Your task to perform on an android device: Search for the new Jordans on Nike.com Image 0: 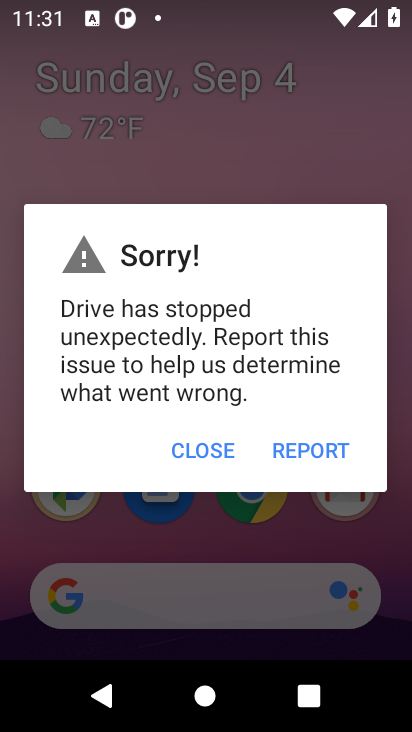
Step 0: click (184, 447)
Your task to perform on an android device: Search for the new Jordans on Nike.com Image 1: 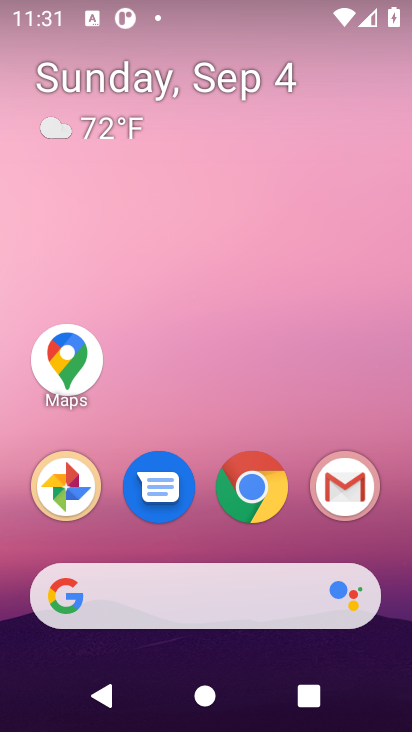
Step 1: click (232, 464)
Your task to perform on an android device: Search for the new Jordans on Nike.com Image 2: 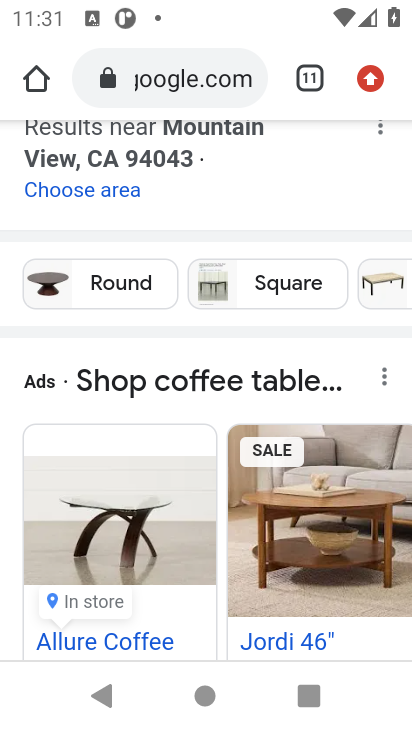
Step 2: click (202, 86)
Your task to perform on an android device: Search for the new Jordans on Nike.com Image 3: 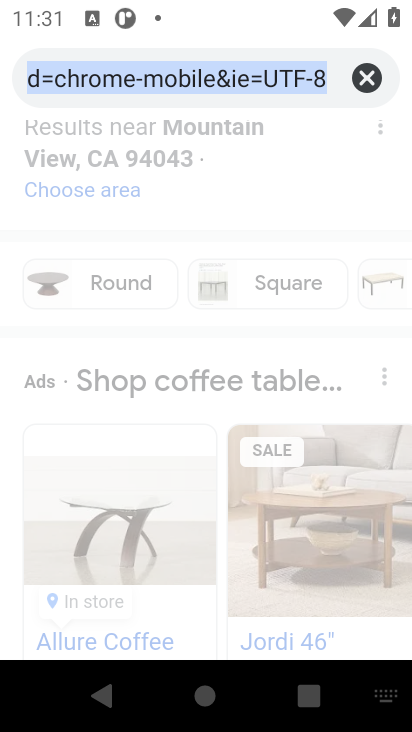
Step 3: type " Nike.com"
Your task to perform on an android device: Search for the new Jordans on Nike.com Image 4: 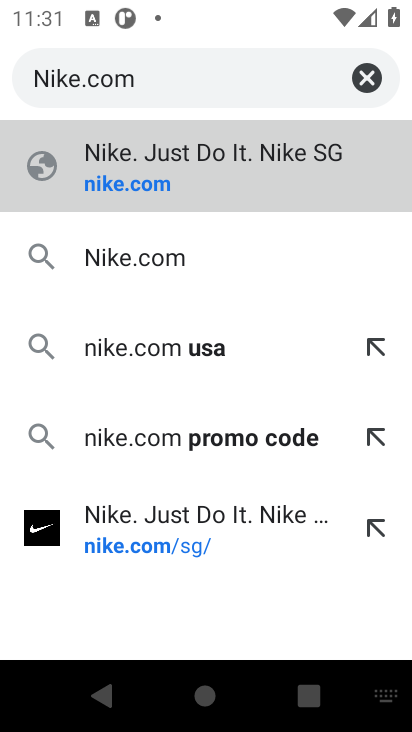
Step 4: click (127, 243)
Your task to perform on an android device: Search for the new Jordans on Nike.com Image 5: 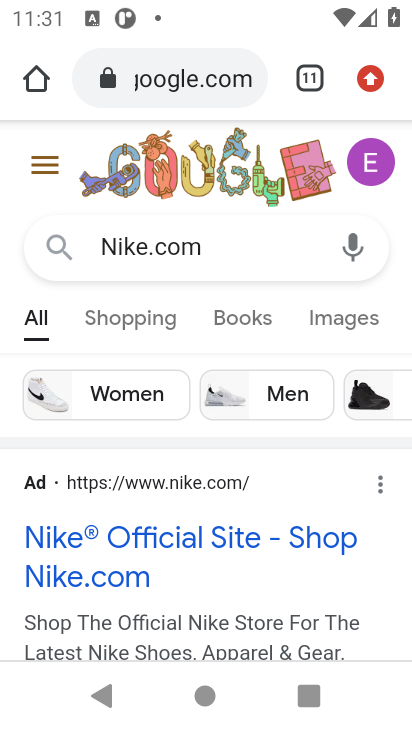
Step 5: click (125, 529)
Your task to perform on an android device: Search for the new Jordans on Nike.com Image 6: 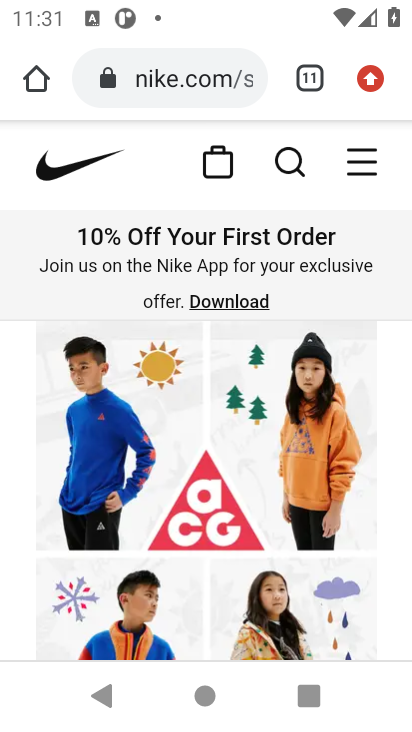
Step 6: click (290, 183)
Your task to perform on an android device: Search for the new Jordans on Nike.com Image 7: 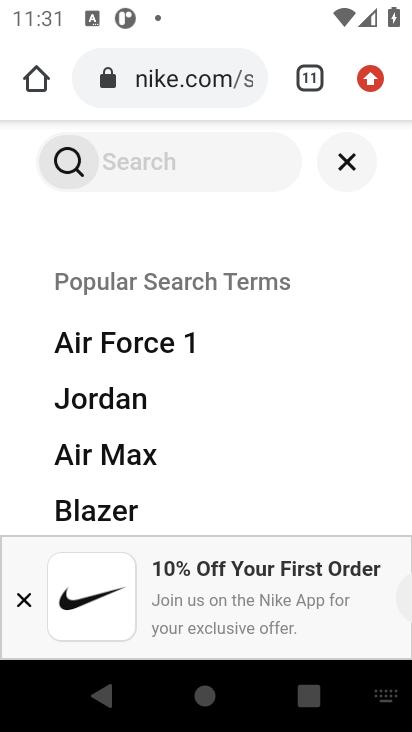
Step 7: click (132, 399)
Your task to perform on an android device: Search for the new Jordans on Nike.com Image 8: 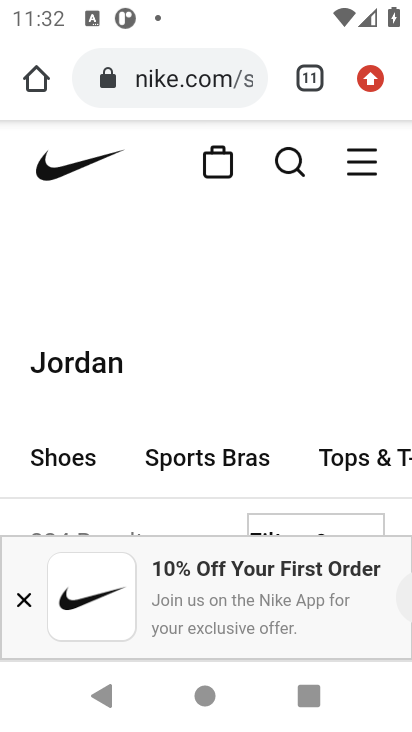
Step 8: task complete